Your task to perform on an android device: Open Google Image 0: 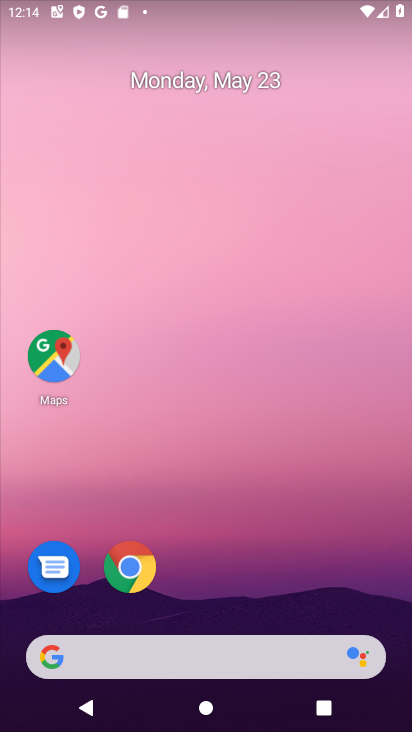
Step 0: drag from (219, 592) to (190, 194)
Your task to perform on an android device: Open Google Image 1: 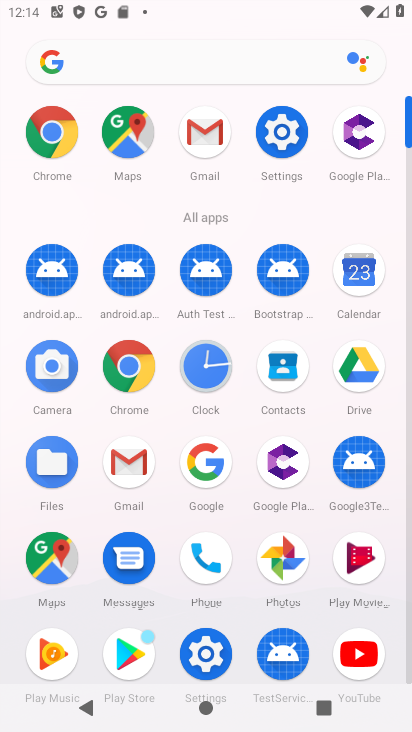
Step 1: click (213, 486)
Your task to perform on an android device: Open Google Image 2: 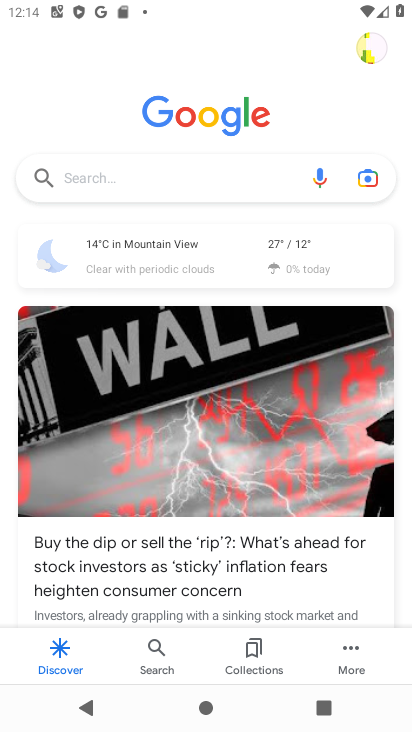
Step 2: task complete